Your task to perform on an android device: see sites visited before in the chrome app Image 0: 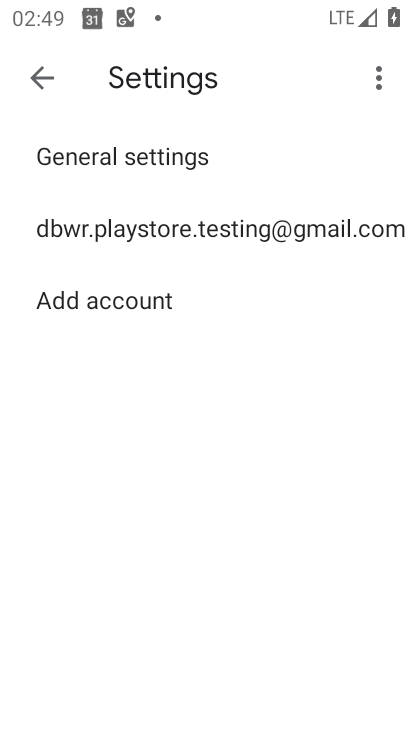
Step 0: press back button
Your task to perform on an android device: see sites visited before in the chrome app Image 1: 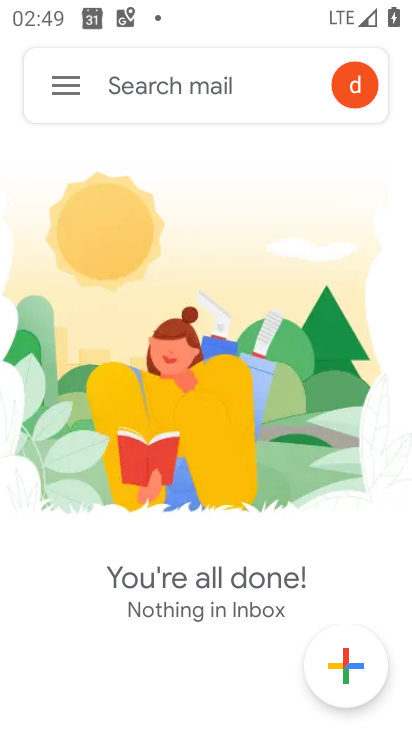
Step 1: press back button
Your task to perform on an android device: see sites visited before in the chrome app Image 2: 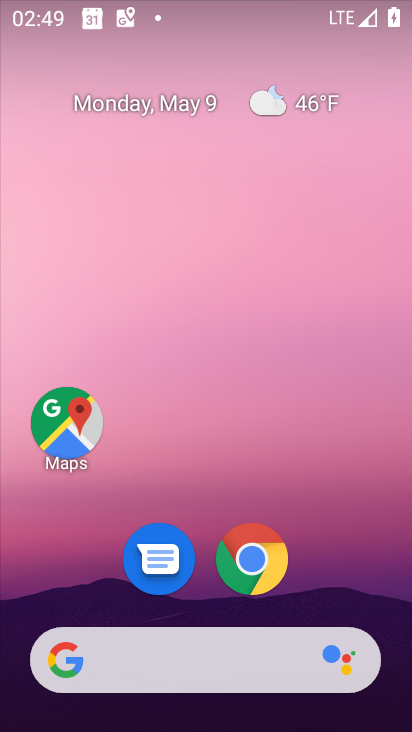
Step 2: click (253, 557)
Your task to perform on an android device: see sites visited before in the chrome app Image 3: 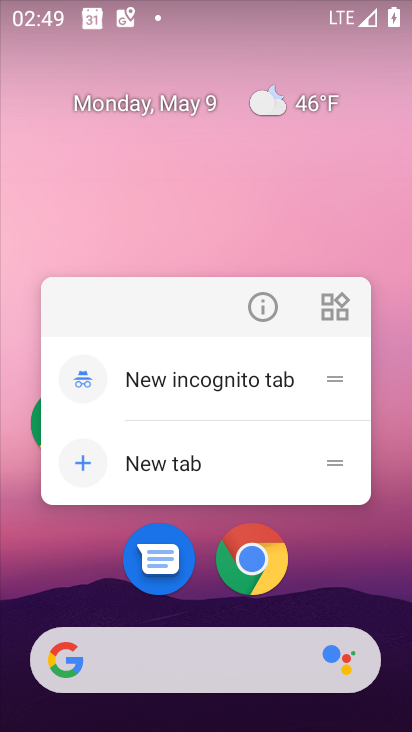
Step 3: click (253, 556)
Your task to perform on an android device: see sites visited before in the chrome app Image 4: 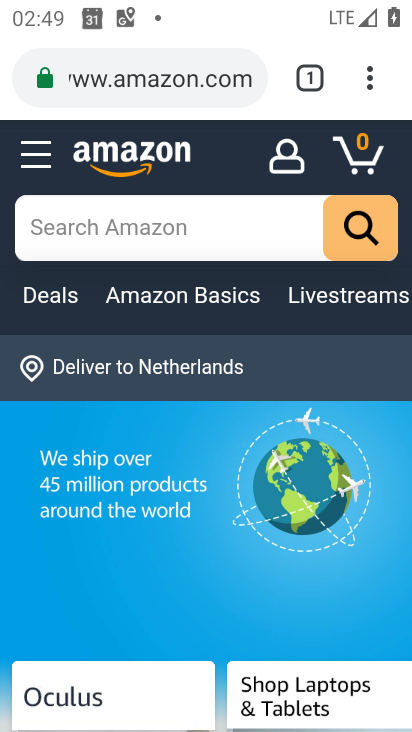
Step 4: click (370, 79)
Your task to perform on an android device: see sites visited before in the chrome app Image 5: 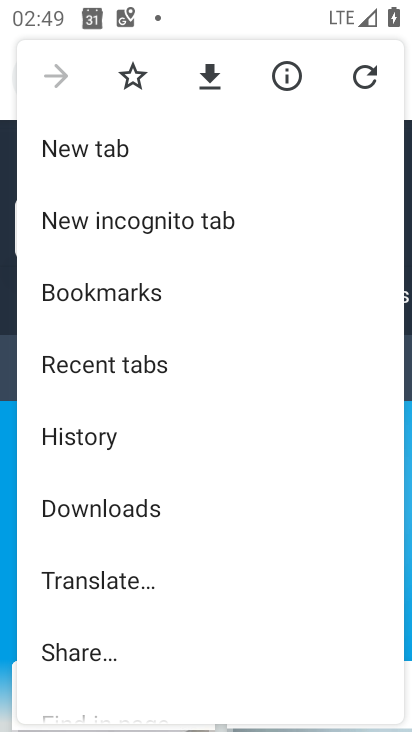
Step 5: click (82, 437)
Your task to perform on an android device: see sites visited before in the chrome app Image 6: 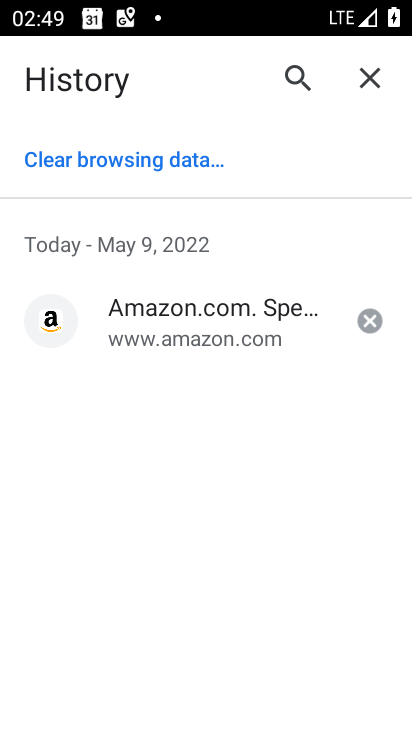
Step 6: task complete